Your task to perform on an android device: Open display settings Image 0: 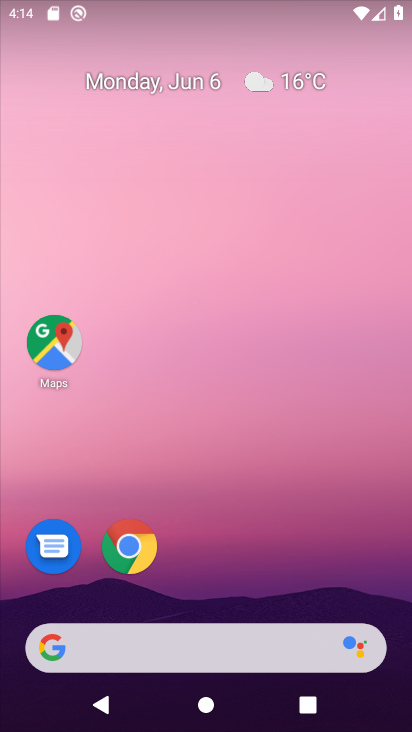
Step 0: drag from (235, 521) to (341, 39)
Your task to perform on an android device: Open display settings Image 1: 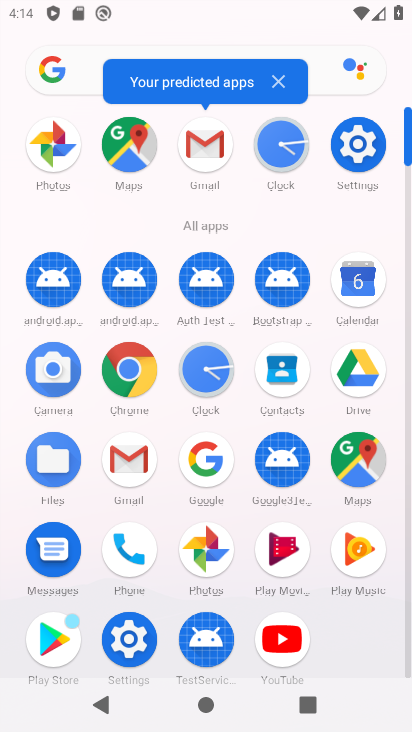
Step 1: click (140, 656)
Your task to perform on an android device: Open display settings Image 2: 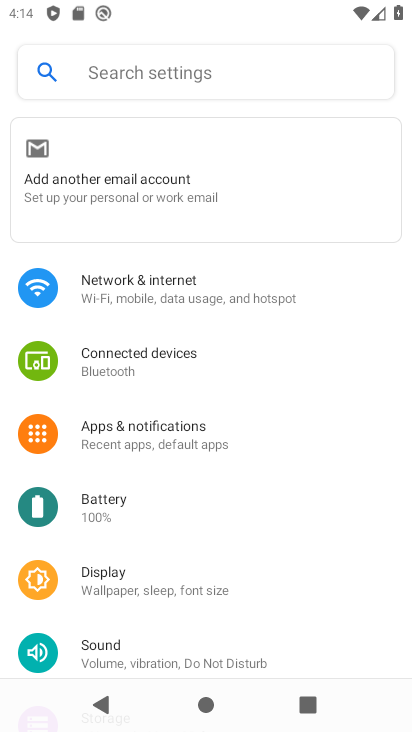
Step 2: click (96, 579)
Your task to perform on an android device: Open display settings Image 3: 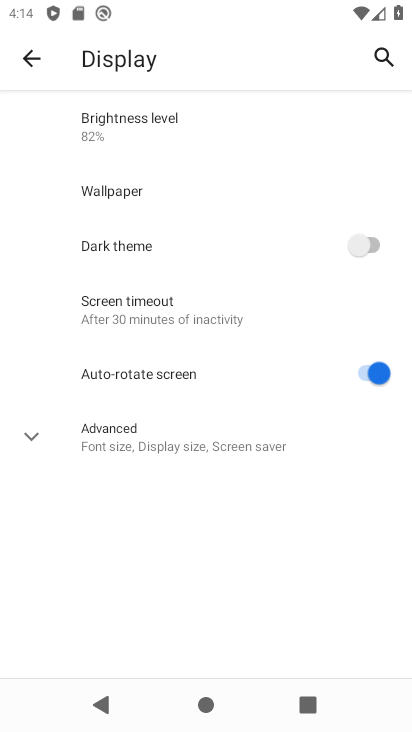
Step 3: click (127, 437)
Your task to perform on an android device: Open display settings Image 4: 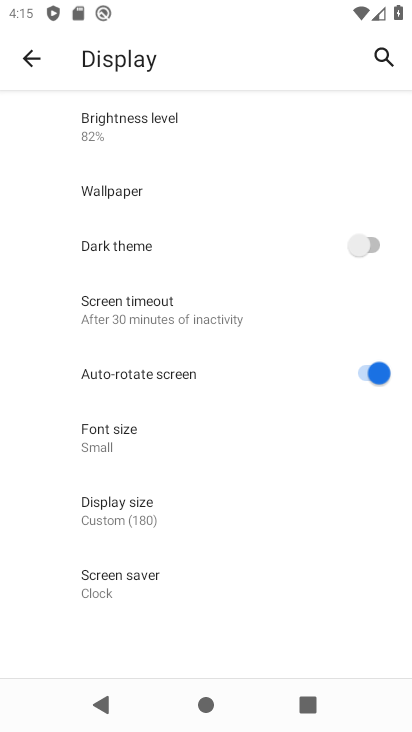
Step 4: task complete